Your task to perform on an android device: Open ESPN.com Image 0: 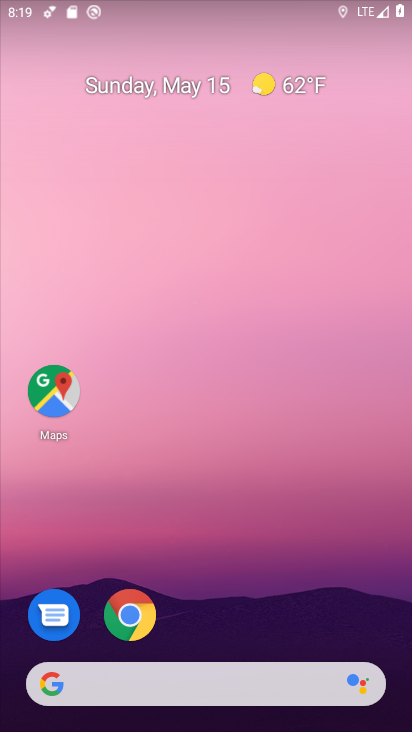
Step 0: click (241, 683)
Your task to perform on an android device: Open ESPN.com Image 1: 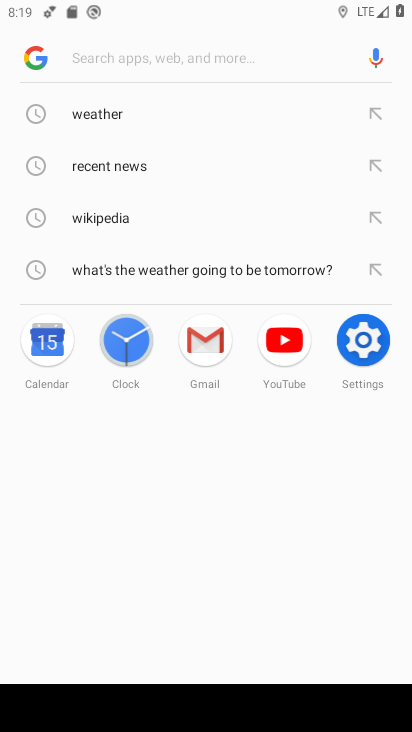
Step 1: type "ESPN.com"
Your task to perform on an android device: Open ESPN.com Image 2: 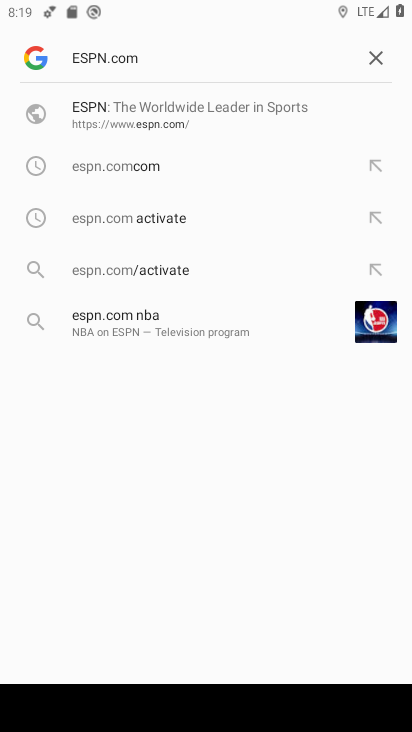
Step 2: click (205, 107)
Your task to perform on an android device: Open ESPN.com Image 3: 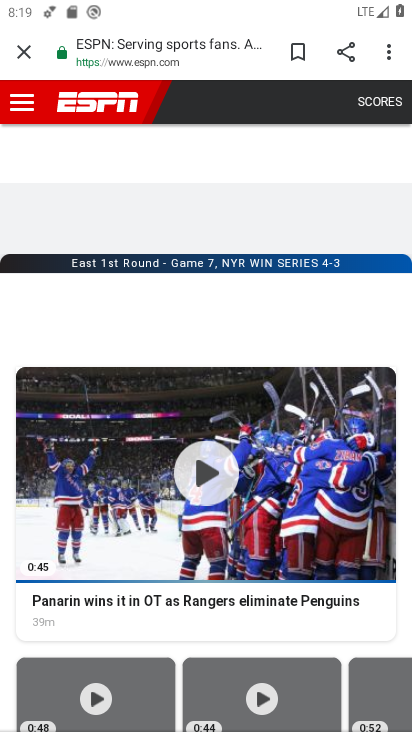
Step 3: task complete